Your task to perform on an android device: Go to ESPN.com Image 0: 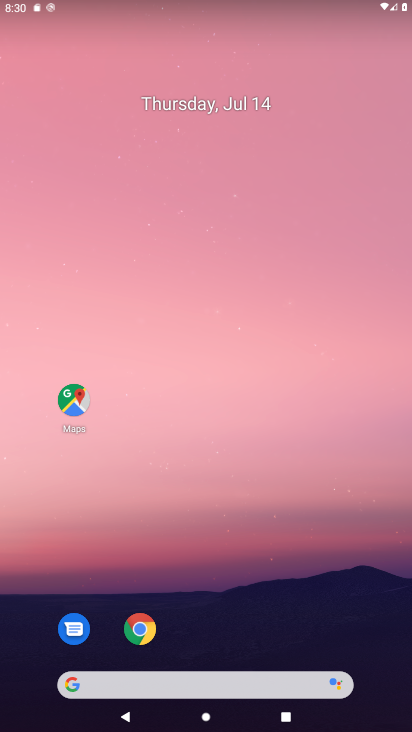
Step 0: click (142, 631)
Your task to perform on an android device: Go to ESPN.com Image 1: 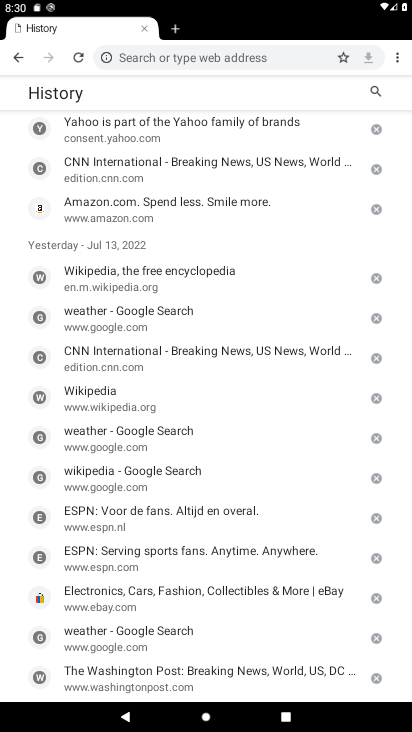
Step 1: drag from (147, 146) to (161, 568)
Your task to perform on an android device: Go to ESPN.com Image 2: 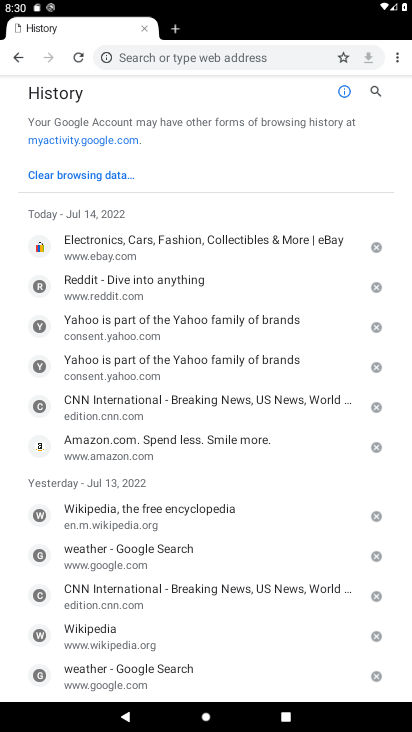
Step 2: click (173, 47)
Your task to perform on an android device: Go to ESPN.com Image 3: 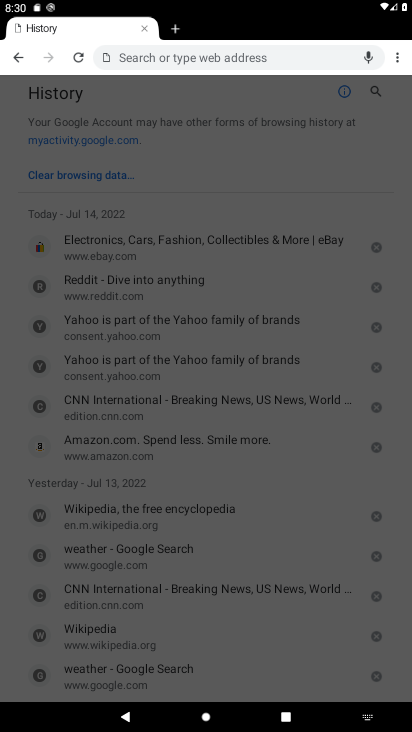
Step 3: type "ESPN.com"
Your task to perform on an android device: Go to ESPN.com Image 4: 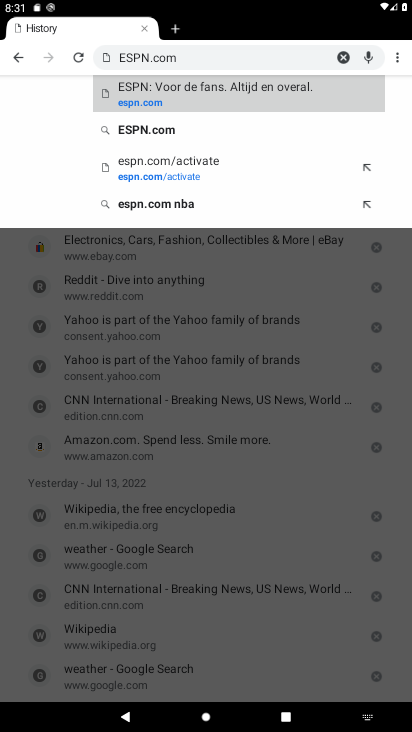
Step 4: click (146, 130)
Your task to perform on an android device: Go to ESPN.com Image 5: 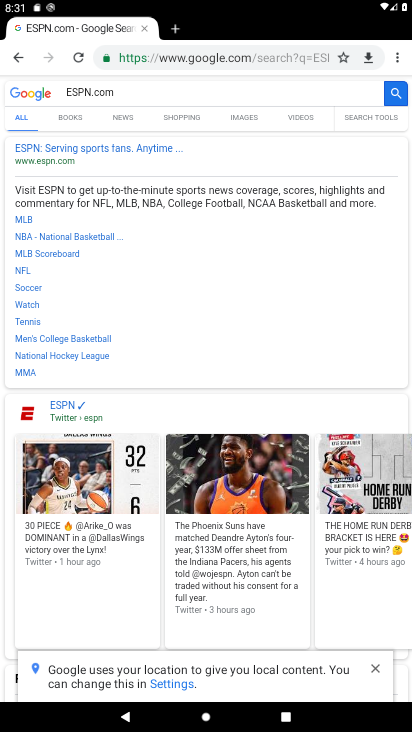
Step 5: task complete